Your task to perform on an android device: remove spam from my inbox in the gmail app Image 0: 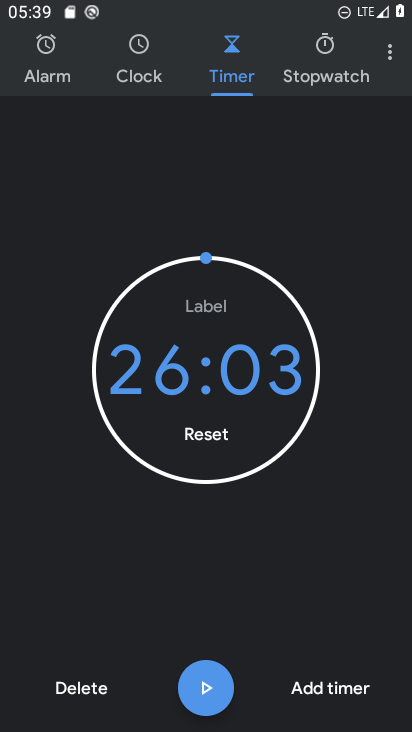
Step 0: press back button
Your task to perform on an android device: remove spam from my inbox in the gmail app Image 1: 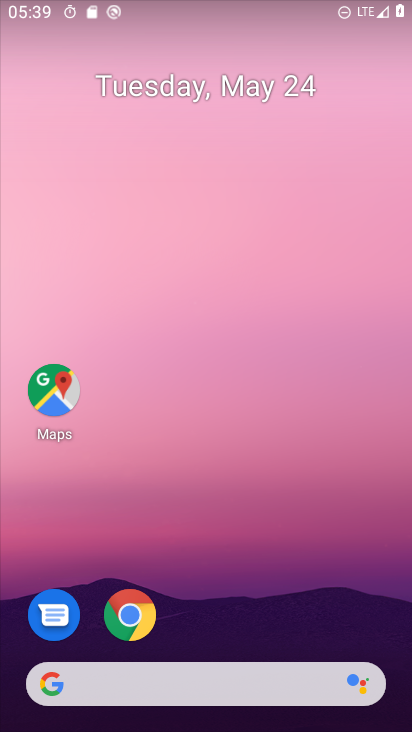
Step 1: drag from (248, 618) to (319, 64)
Your task to perform on an android device: remove spam from my inbox in the gmail app Image 2: 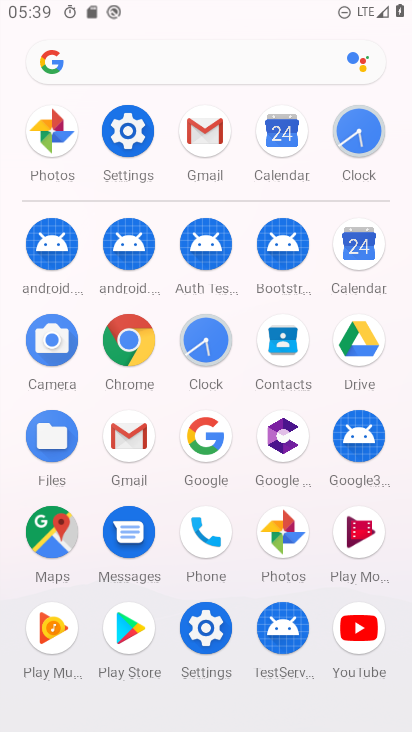
Step 2: click (117, 437)
Your task to perform on an android device: remove spam from my inbox in the gmail app Image 3: 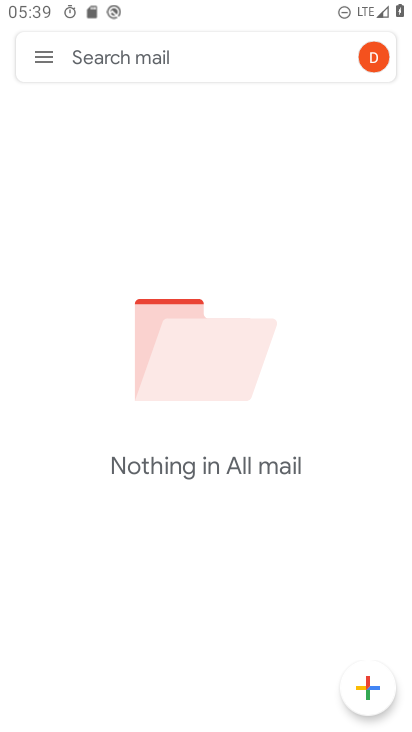
Step 3: click (38, 51)
Your task to perform on an android device: remove spam from my inbox in the gmail app Image 4: 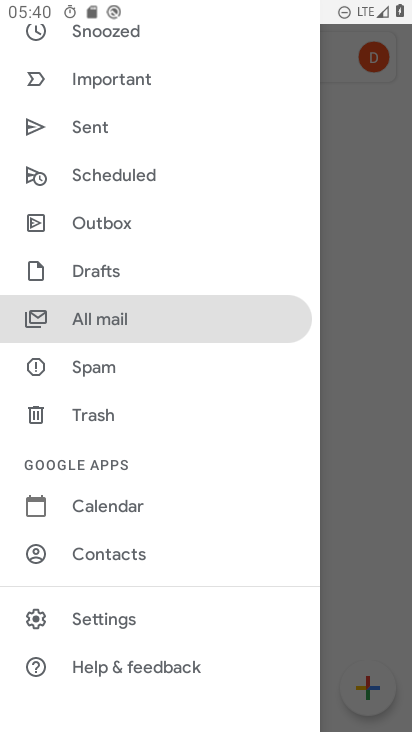
Step 4: click (90, 368)
Your task to perform on an android device: remove spam from my inbox in the gmail app Image 5: 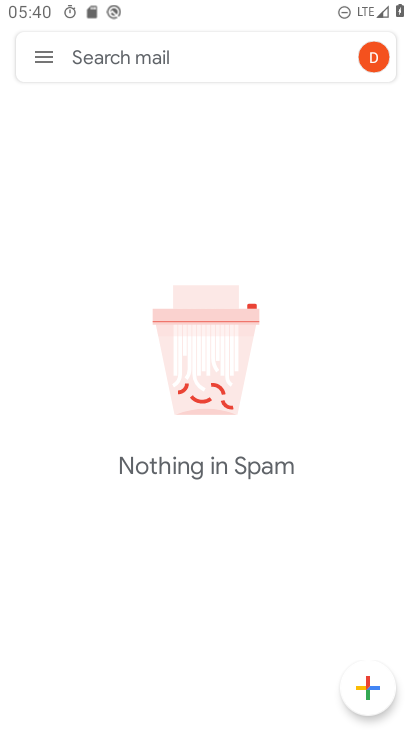
Step 5: task complete